Your task to perform on an android device: toggle notification dots Image 0: 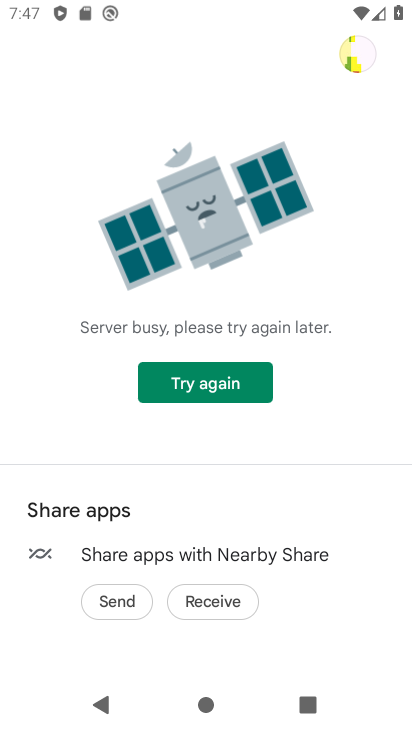
Step 0: press home button
Your task to perform on an android device: toggle notification dots Image 1: 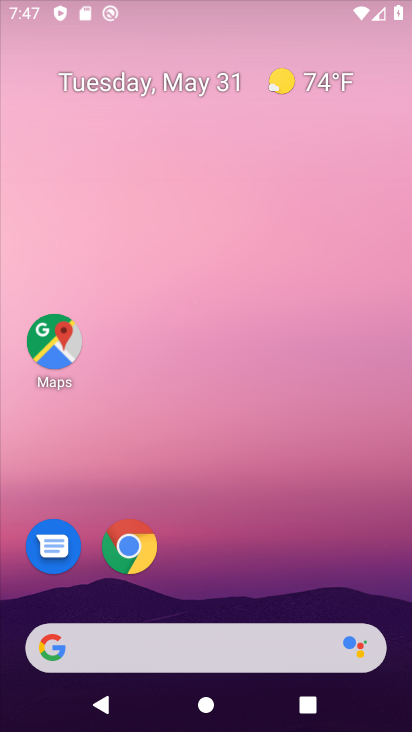
Step 1: drag from (237, 576) to (252, 111)
Your task to perform on an android device: toggle notification dots Image 2: 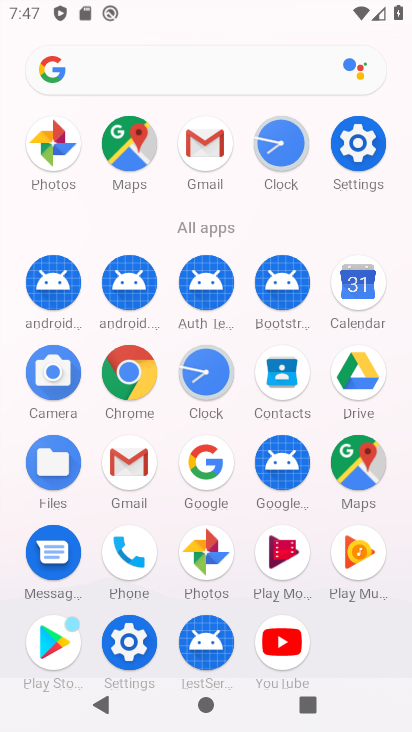
Step 2: click (363, 139)
Your task to perform on an android device: toggle notification dots Image 3: 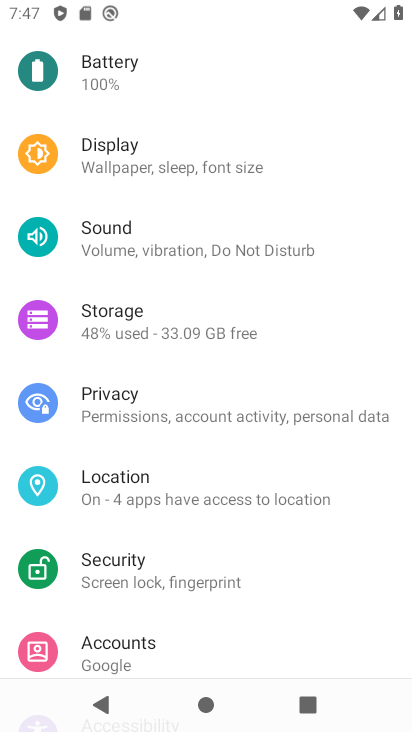
Step 3: drag from (145, 92) to (175, 502)
Your task to perform on an android device: toggle notification dots Image 4: 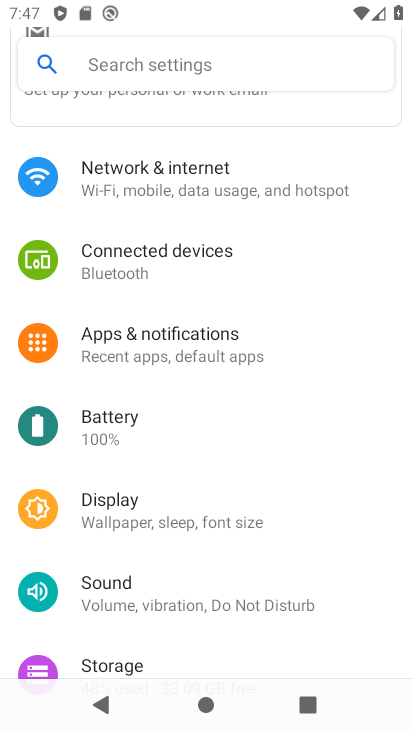
Step 4: click (151, 334)
Your task to perform on an android device: toggle notification dots Image 5: 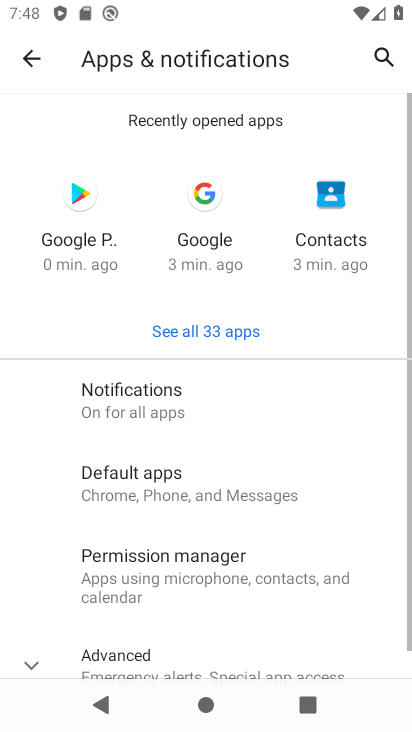
Step 5: click (147, 392)
Your task to perform on an android device: toggle notification dots Image 6: 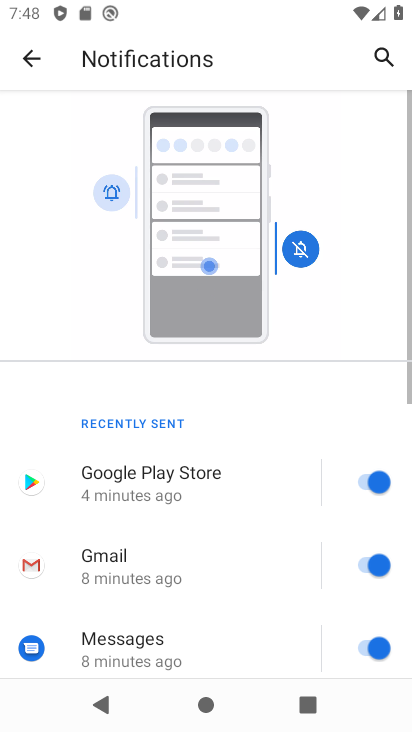
Step 6: drag from (221, 522) to (280, 38)
Your task to perform on an android device: toggle notification dots Image 7: 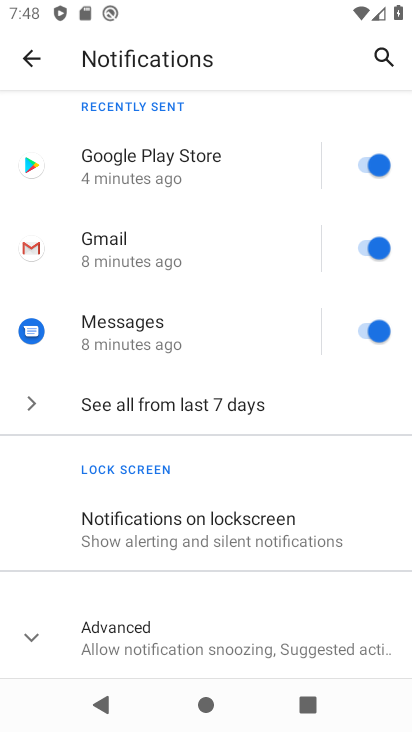
Step 7: click (158, 645)
Your task to perform on an android device: toggle notification dots Image 8: 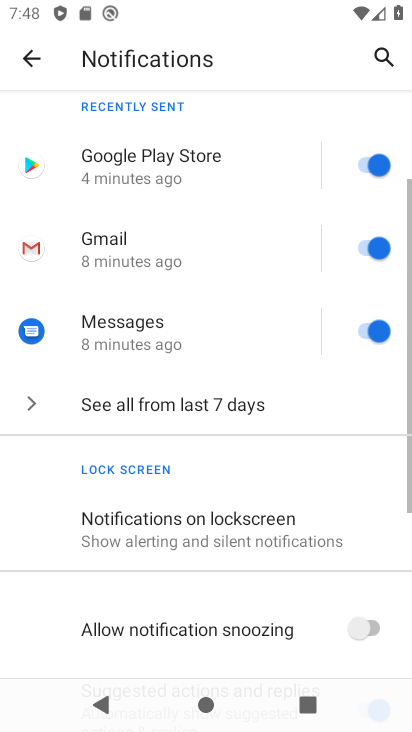
Step 8: drag from (231, 583) to (233, 306)
Your task to perform on an android device: toggle notification dots Image 9: 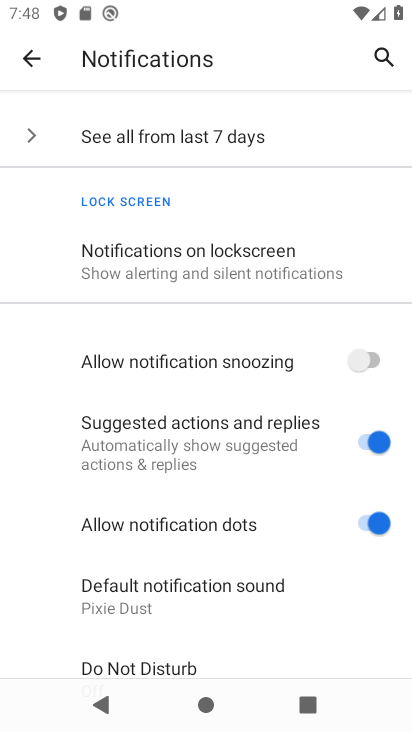
Step 9: click (367, 523)
Your task to perform on an android device: toggle notification dots Image 10: 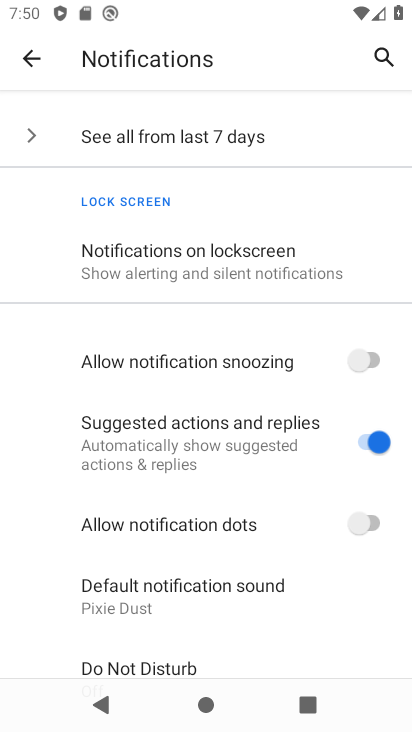
Step 10: task complete